Your task to perform on an android device: turn notification dots on Image 0: 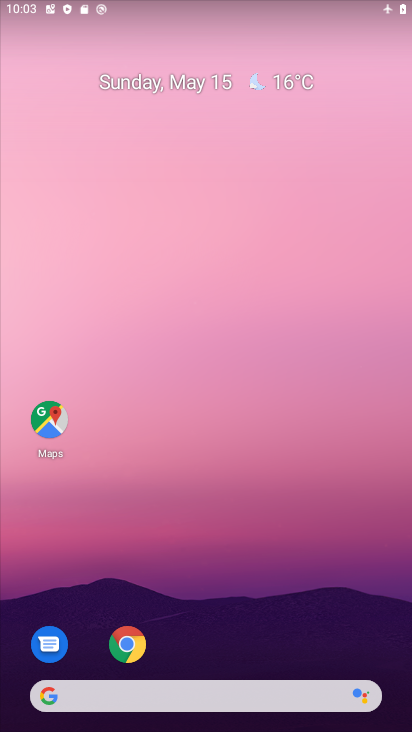
Step 0: drag from (193, 661) to (312, 107)
Your task to perform on an android device: turn notification dots on Image 1: 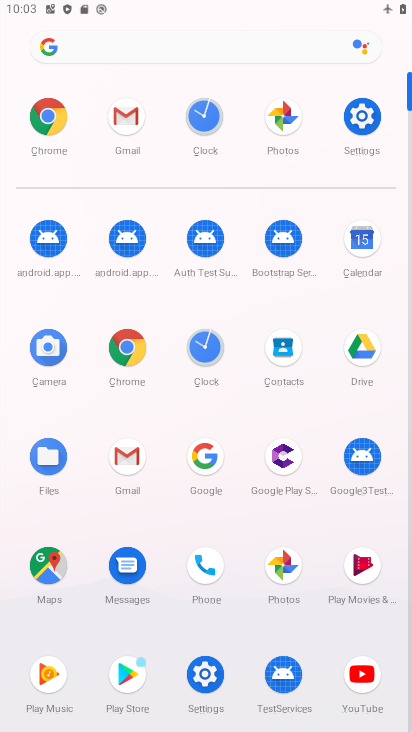
Step 1: click (360, 114)
Your task to perform on an android device: turn notification dots on Image 2: 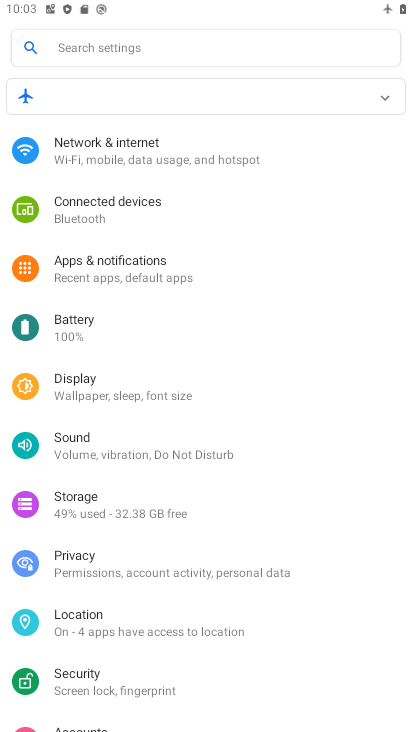
Step 2: click (125, 273)
Your task to perform on an android device: turn notification dots on Image 3: 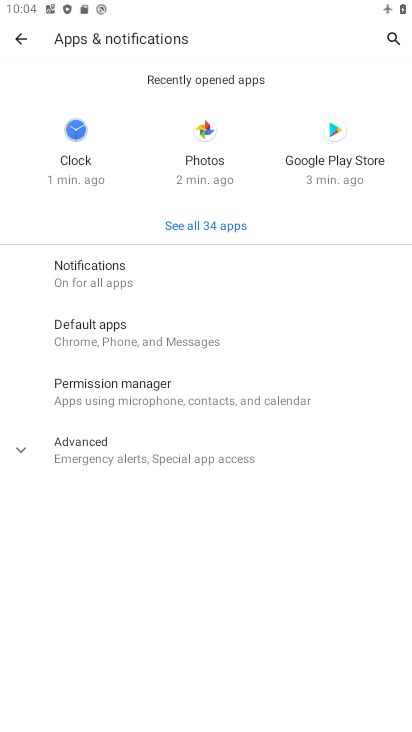
Step 3: click (142, 276)
Your task to perform on an android device: turn notification dots on Image 4: 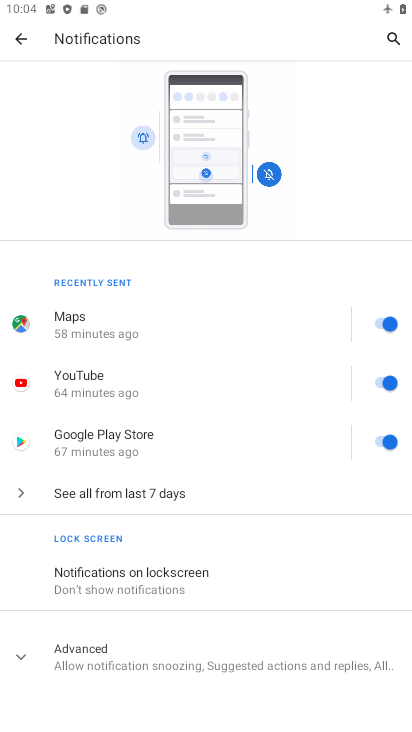
Step 4: drag from (156, 622) to (247, 267)
Your task to perform on an android device: turn notification dots on Image 5: 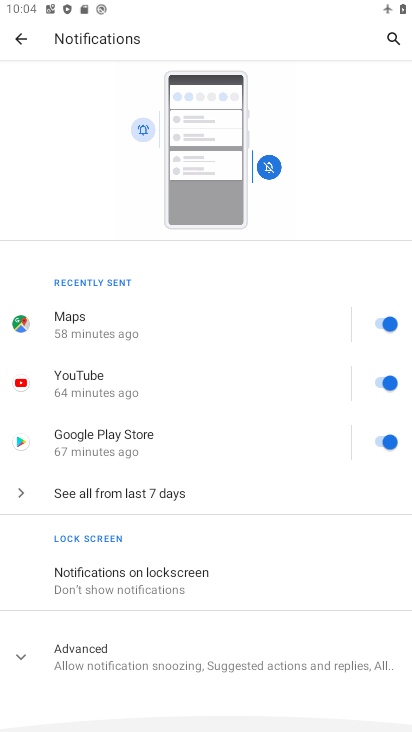
Step 5: click (125, 658)
Your task to perform on an android device: turn notification dots on Image 6: 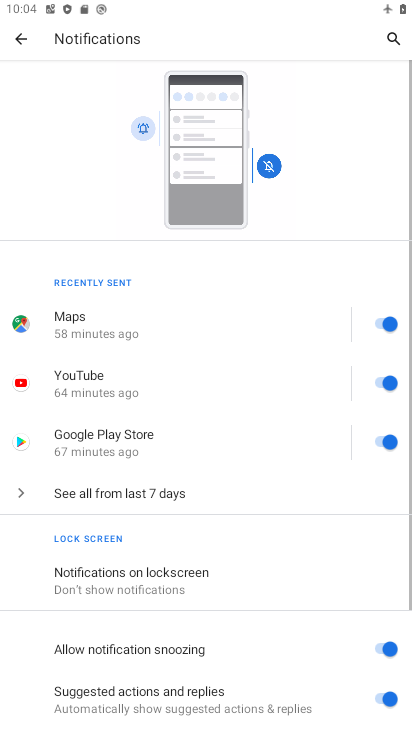
Step 6: task complete